Your task to perform on an android device: Open Chrome and go to settings Image 0: 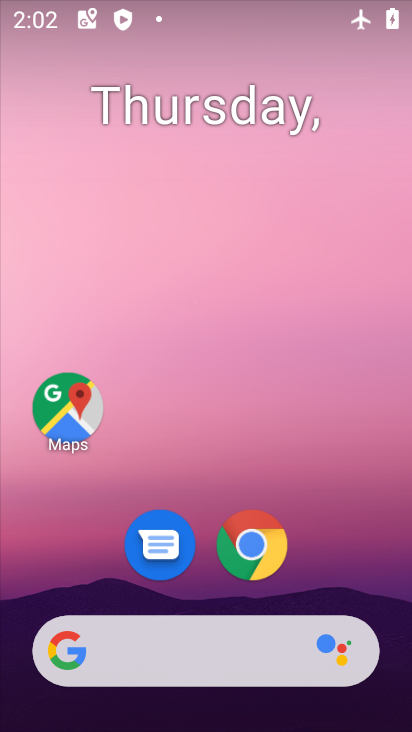
Step 0: click (255, 553)
Your task to perform on an android device: Open Chrome and go to settings Image 1: 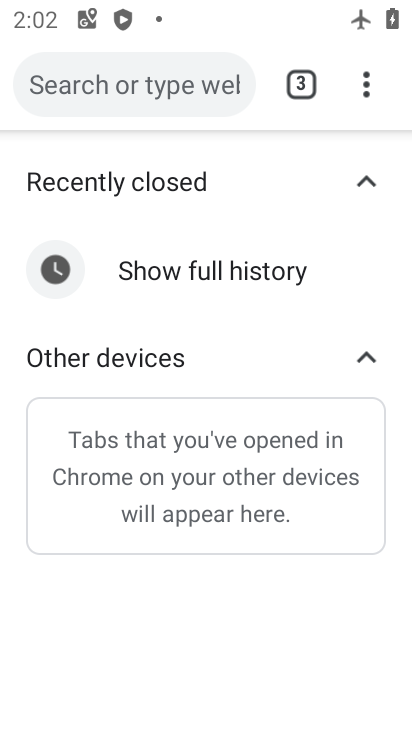
Step 1: click (356, 88)
Your task to perform on an android device: Open Chrome and go to settings Image 2: 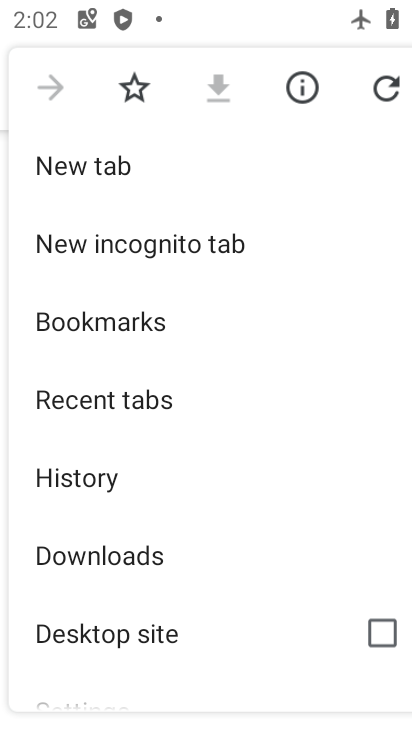
Step 2: drag from (185, 679) to (250, 247)
Your task to perform on an android device: Open Chrome and go to settings Image 3: 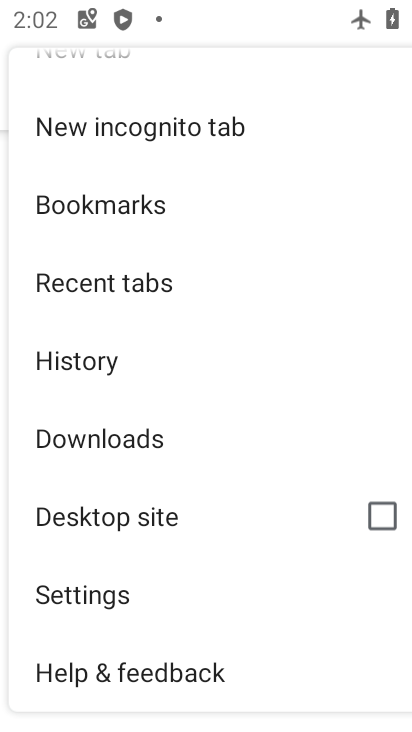
Step 3: click (146, 598)
Your task to perform on an android device: Open Chrome and go to settings Image 4: 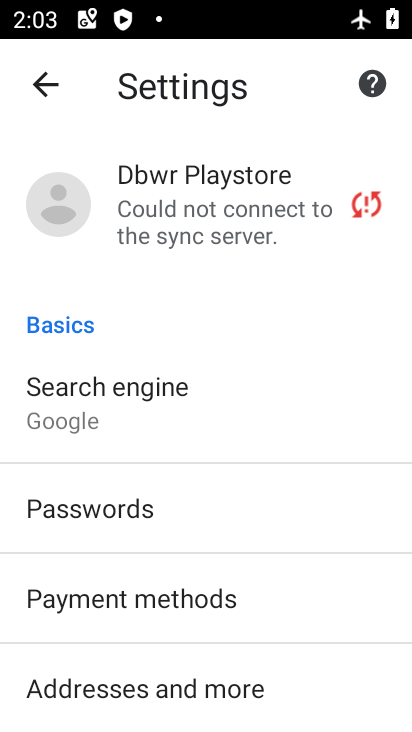
Step 4: task complete